Your task to perform on an android device: Open Google Chrome Image 0: 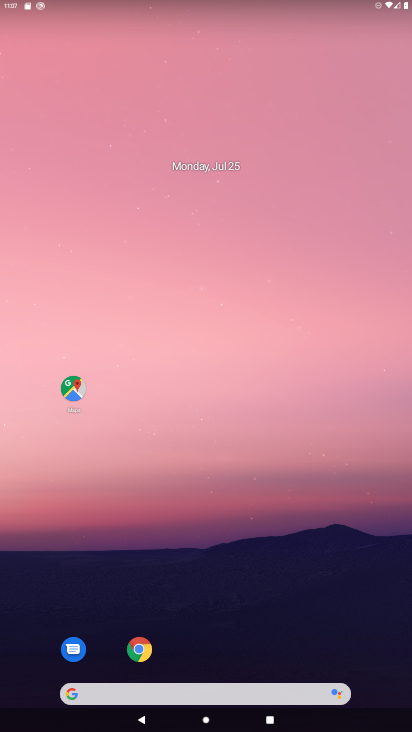
Step 0: click (140, 652)
Your task to perform on an android device: Open Google Chrome Image 1: 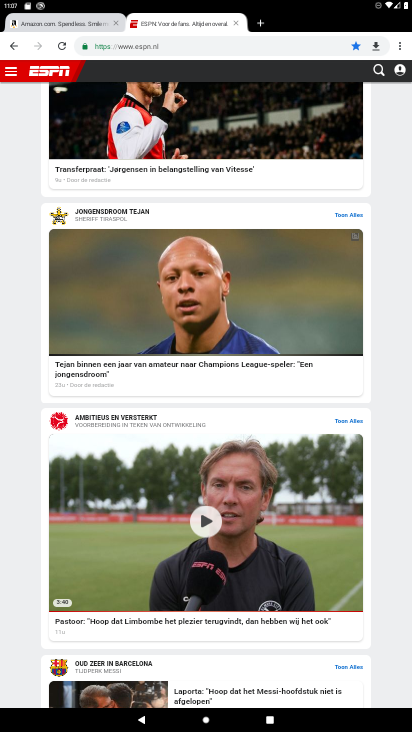
Step 1: task complete